Your task to perform on an android device: Open the Play Movies app and select the watchlist tab. Image 0: 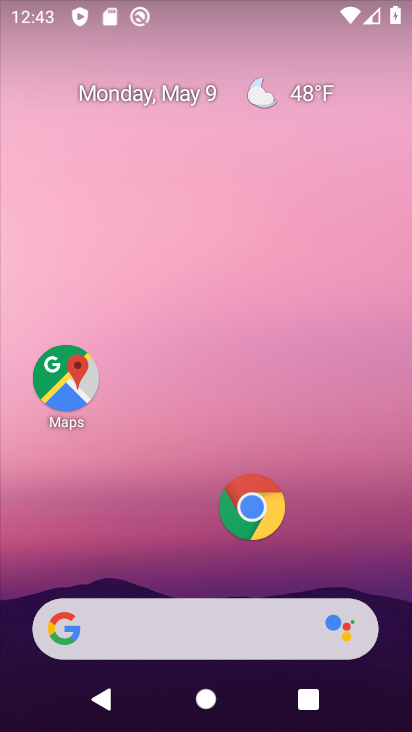
Step 0: drag from (184, 505) to (237, 138)
Your task to perform on an android device: Open the Play Movies app and select the watchlist tab. Image 1: 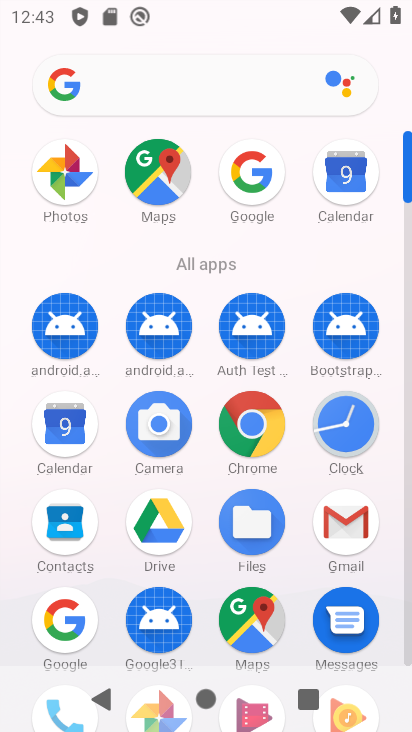
Step 1: drag from (288, 582) to (314, 308)
Your task to perform on an android device: Open the Play Movies app and select the watchlist tab. Image 2: 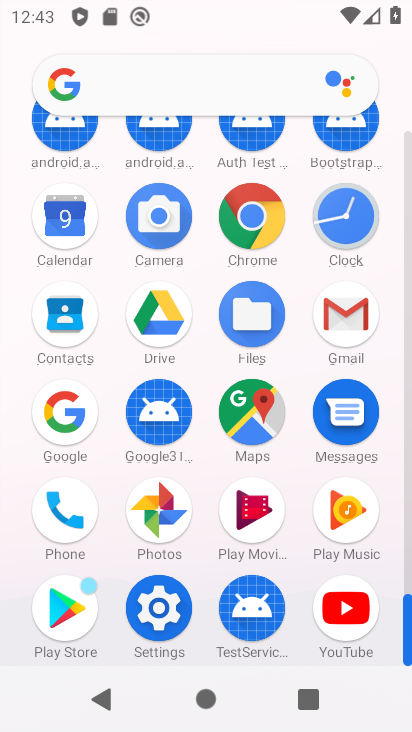
Step 2: click (256, 506)
Your task to perform on an android device: Open the Play Movies app and select the watchlist tab. Image 3: 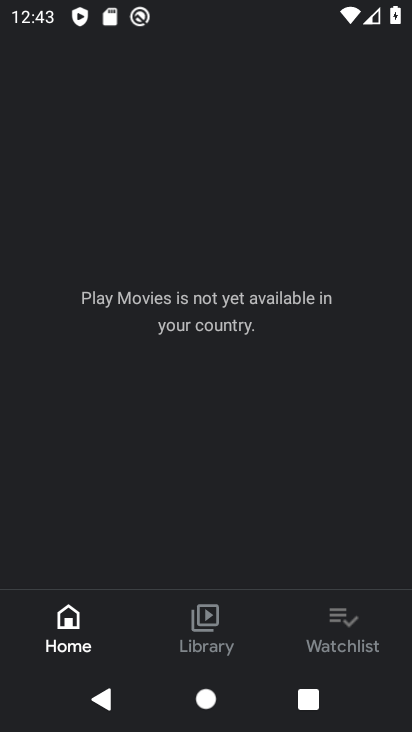
Step 3: click (336, 627)
Your task to perform on an android device: Open the Play Movies app and select the watchlist tab. Image 4: 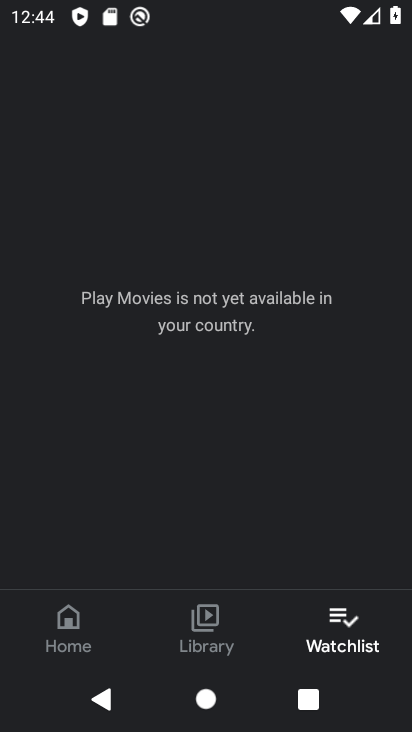
Step 4: task complete